Your task to perform on an android device: turn on priority inbox in the gmail app Image 0: 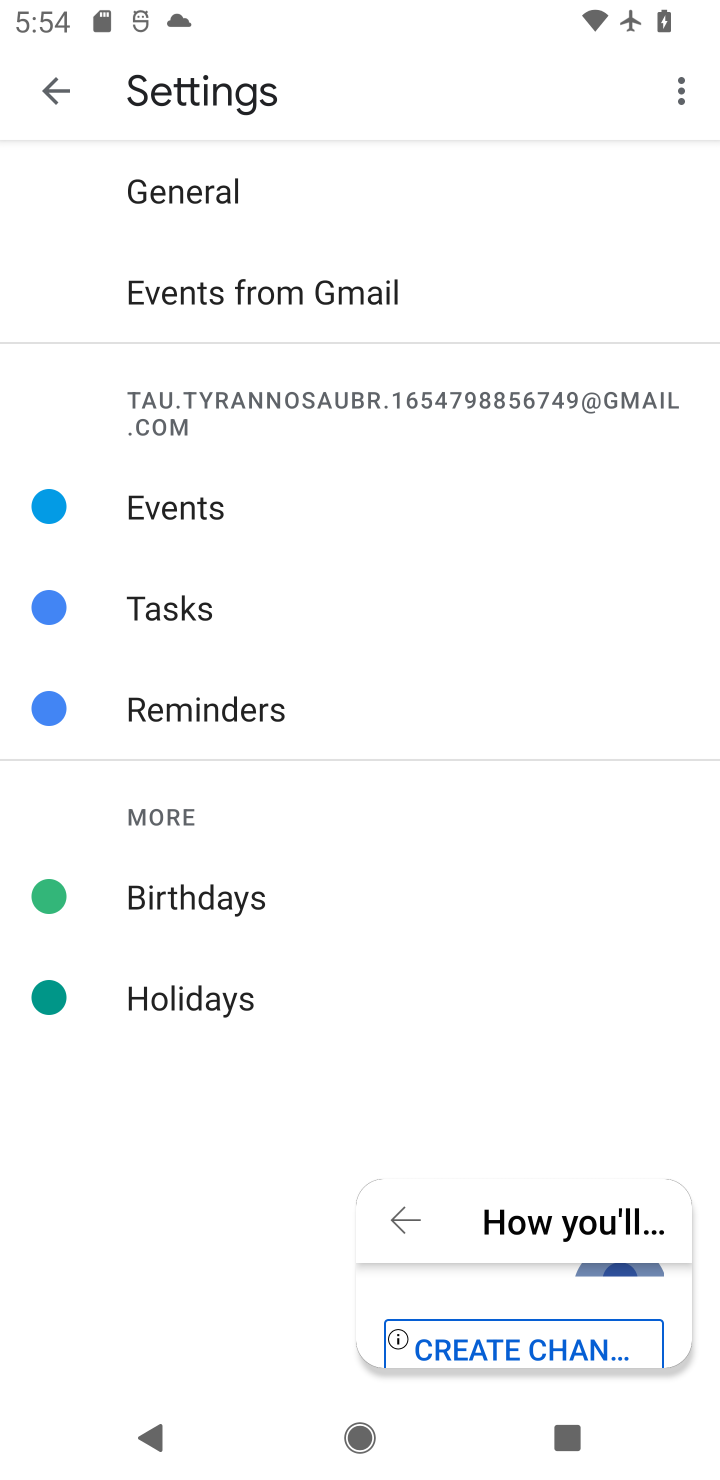
Step 0: press home button
Your task to perform on an android device: turn on priority inbox in the gmail app Image 1: 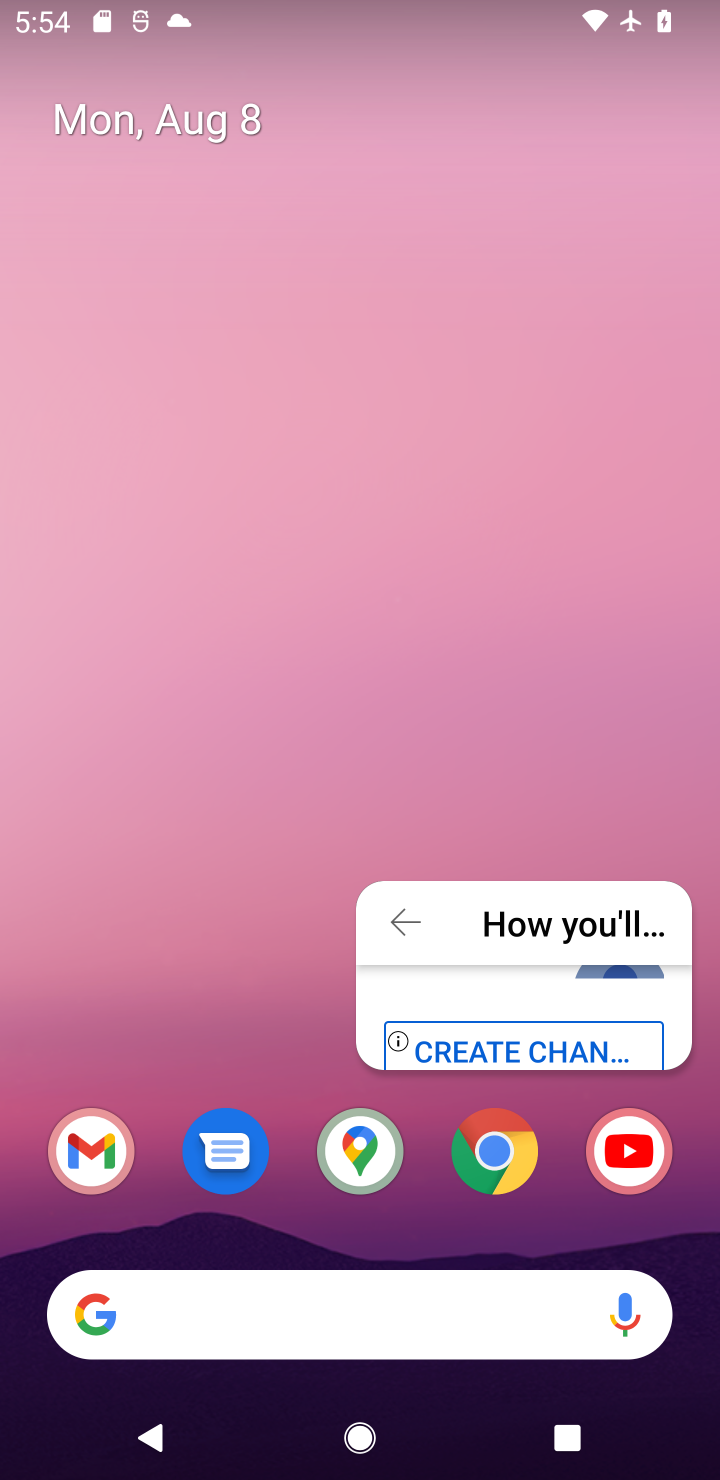
Step 1: drag from (226, 752) to (220, 443)
Your task to perform on an android device: turn on priority inbox in the gmail app Image 2: 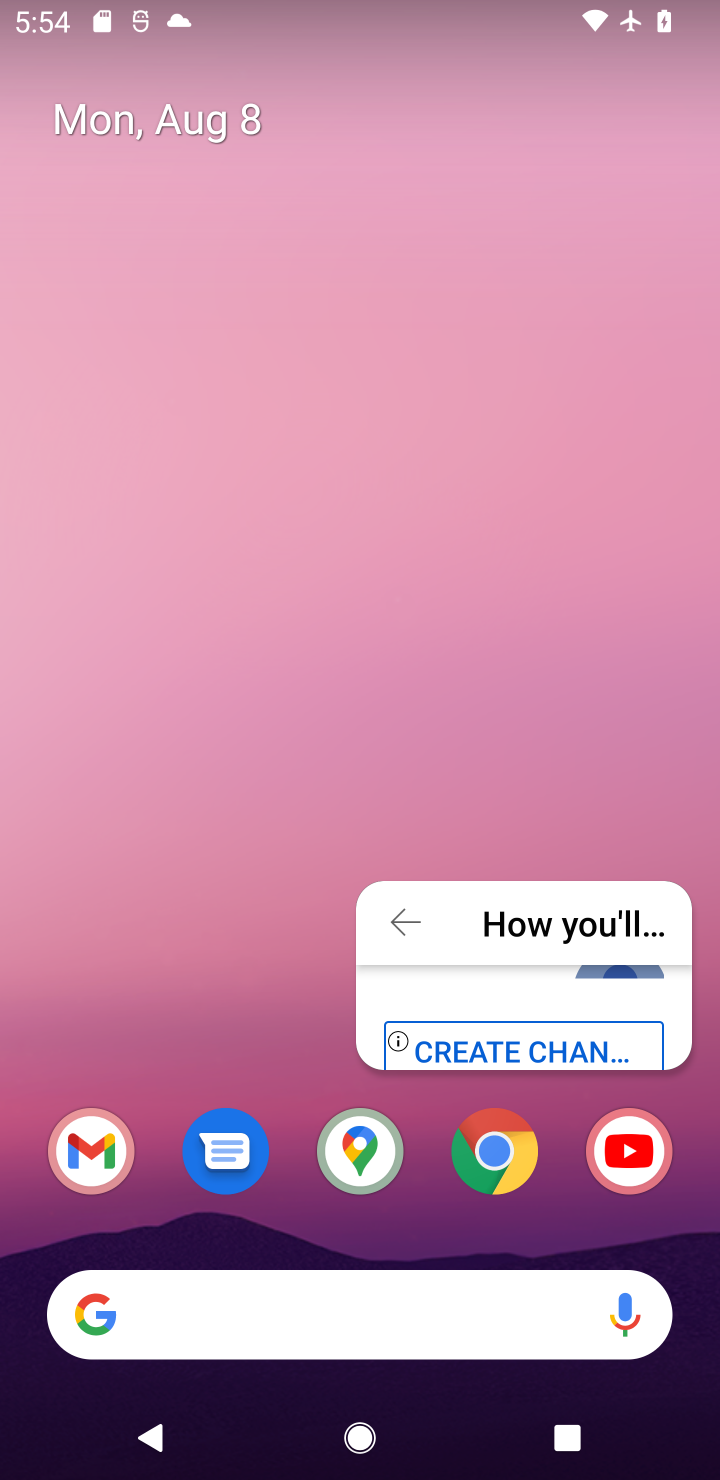
Step 2: drag from (302, 1016) to (384, 188)
Your task to perform on an android device: turn on priority inbox in the gmail app Image 3: 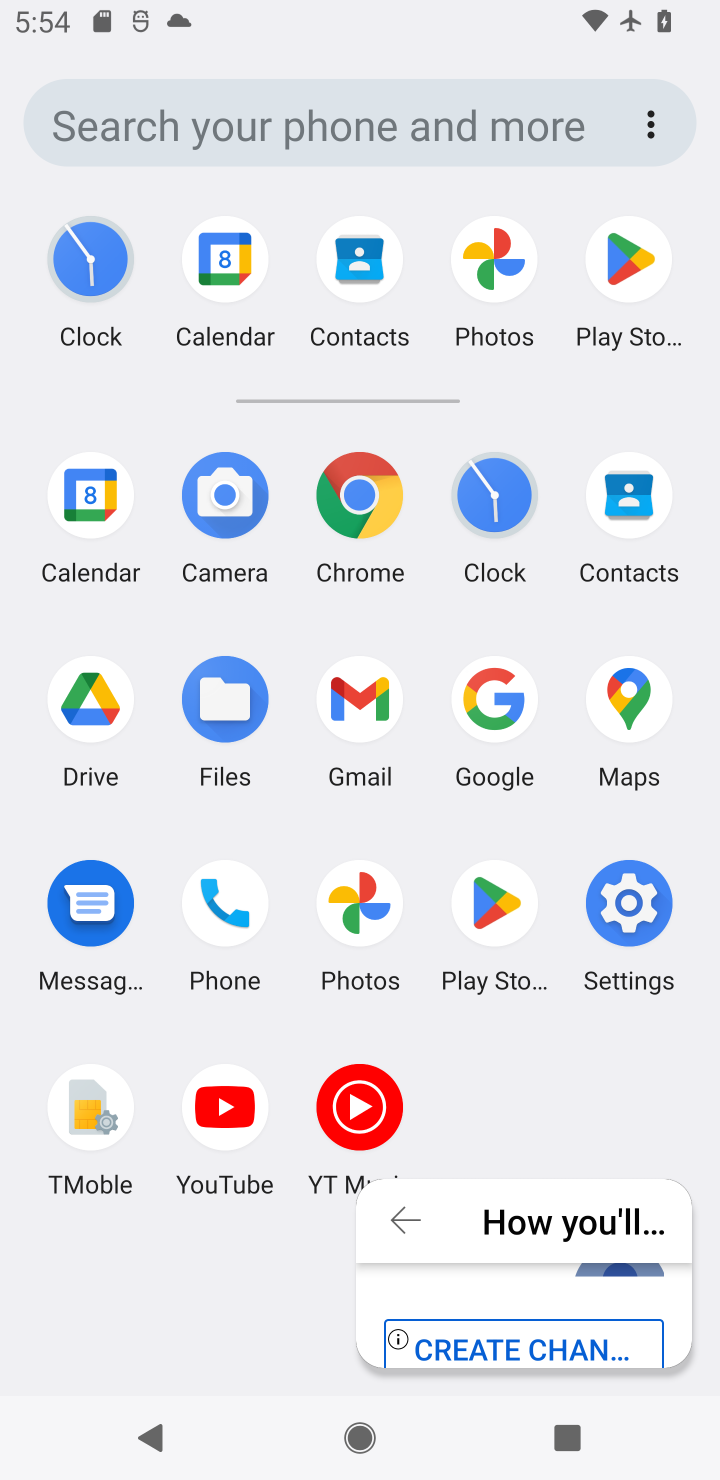
Step 3: click (376, 769)
Your task to perform on an android device: turn on priority inbox in the gmail app Image 4: 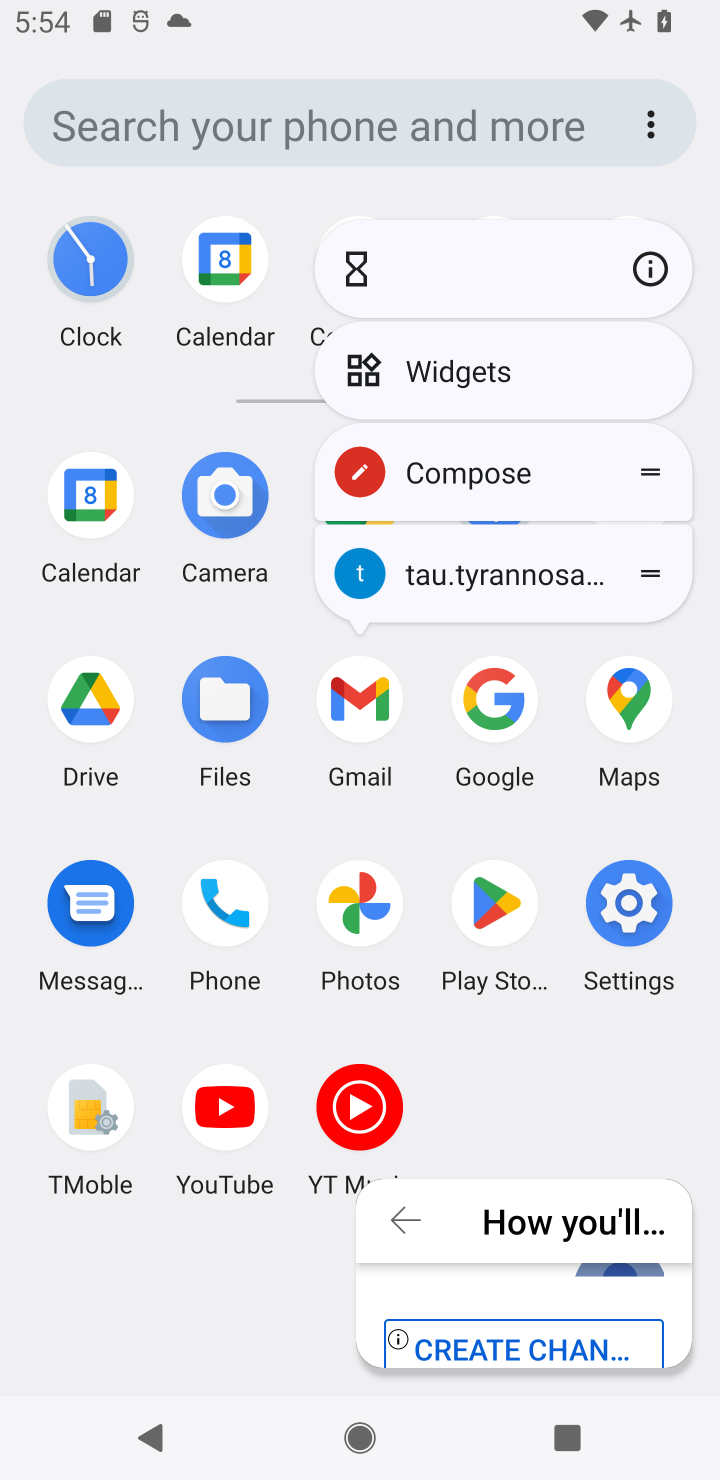
Step 4: click (331, 742)
Your task to perform on an android device: turn on priority inbox in the gmail app Image 5: 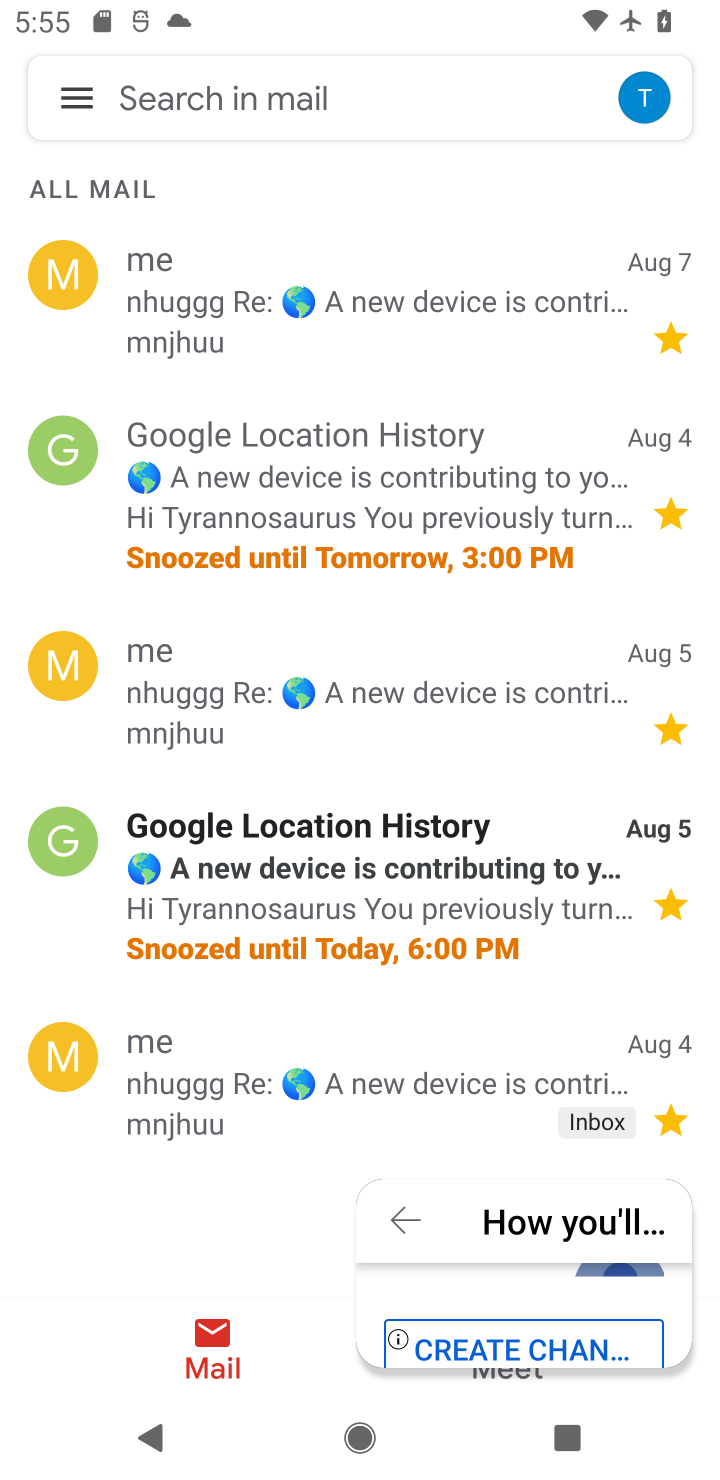
Step 5: click (74, 120)
Your task to perform on an android device: turn on priority inbox in the gmail app Image 6: 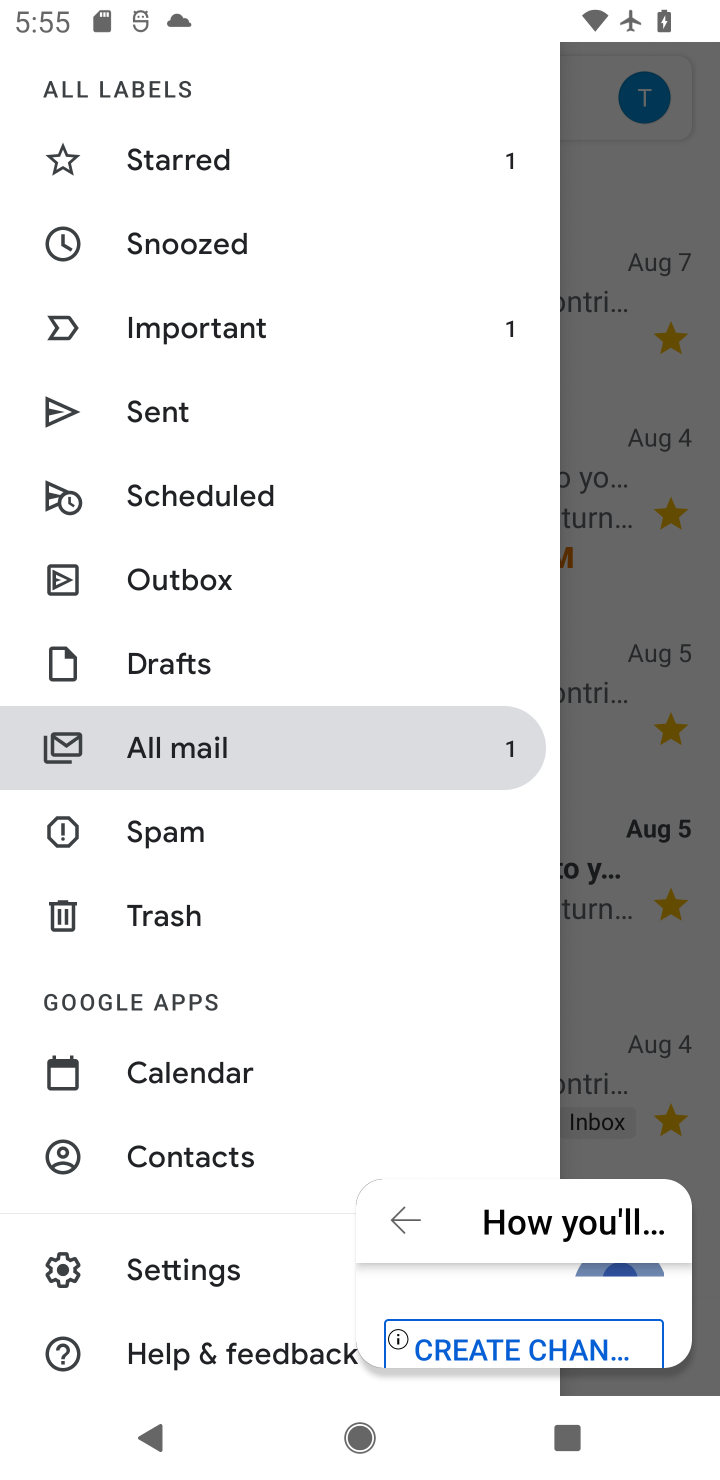
Step 6: click (247, 1245)
Your task to perform on an android device: turn on priority inbox in the gmail app Image 7: 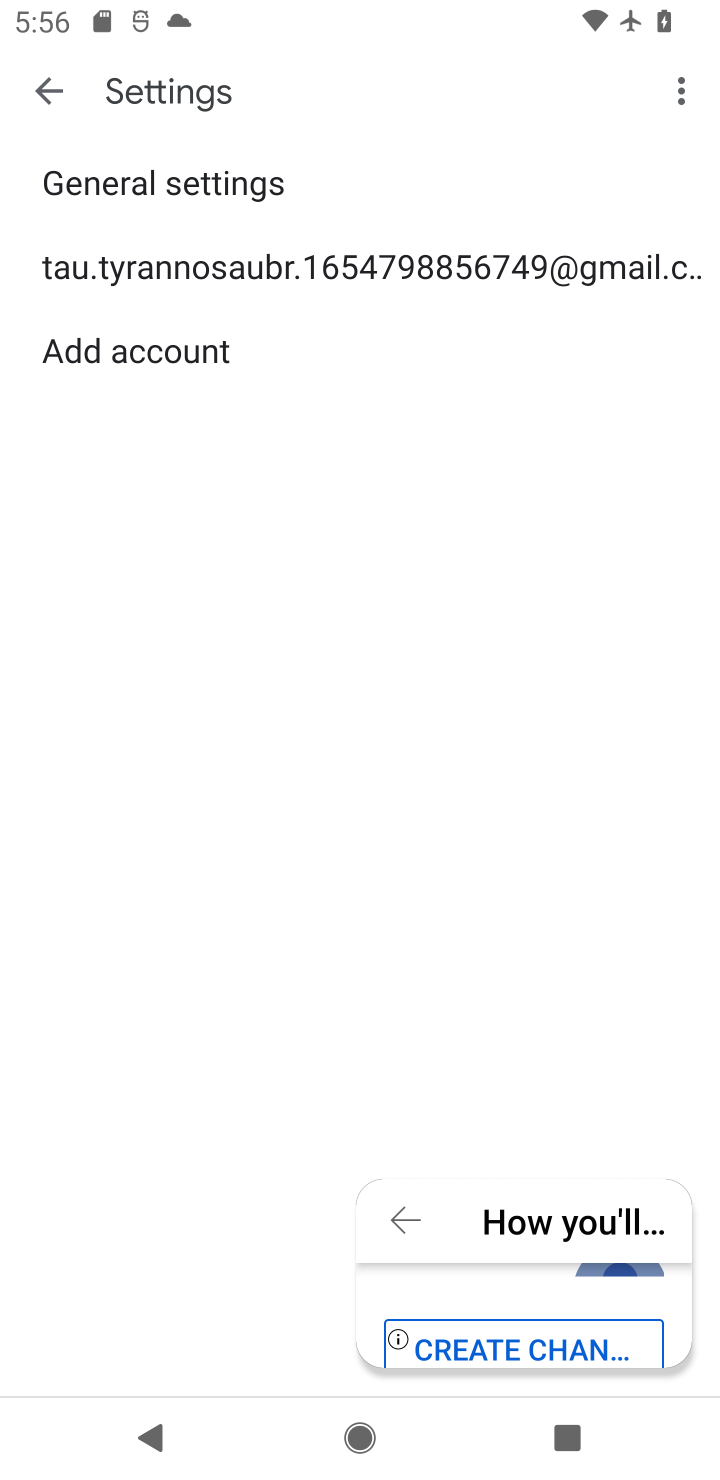
Step 7: click (298, 283)
Your task to perform on an android device: turn on priority inbox in the gmail app Image 8: 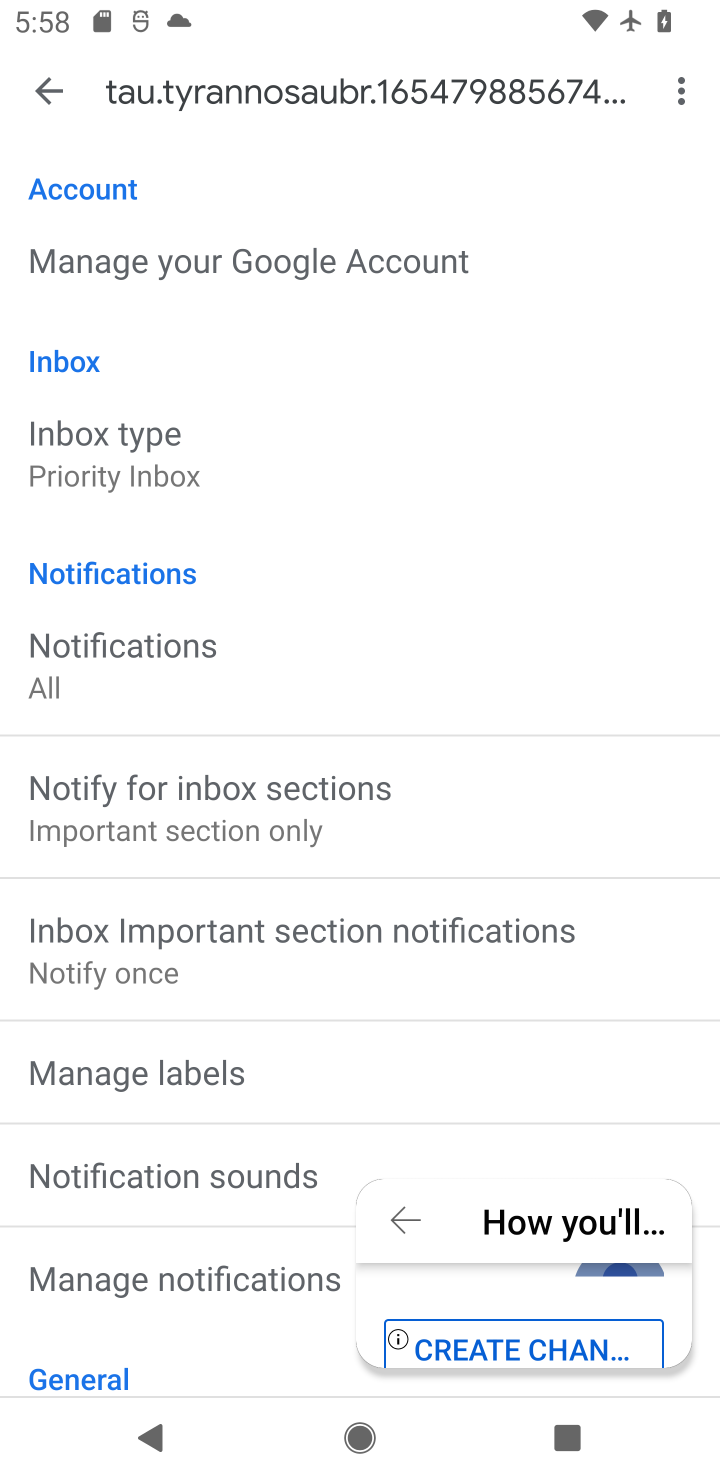
Step 8: task complete